Your task to perform on an android device: Show the shopping cart on ebay. Image 0: 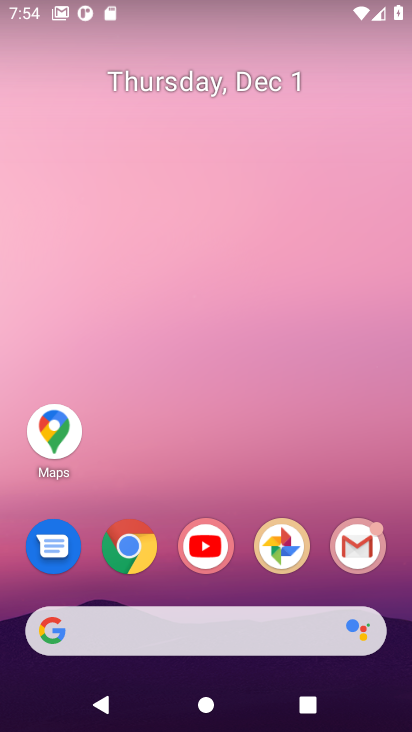
Step 0: click (131, 545)
Your task to perform on an android device: Show the shopping cart on ebay. Image 1: 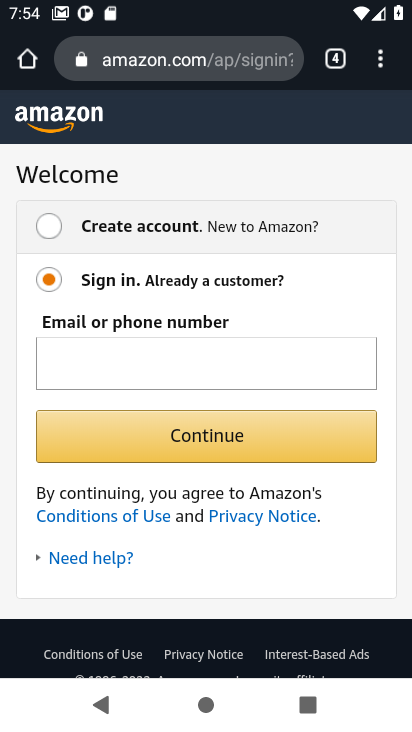
Step 1: click (170, 58)
Your task to perform on an android device: Show the shopping cart on ebay. Image 2: 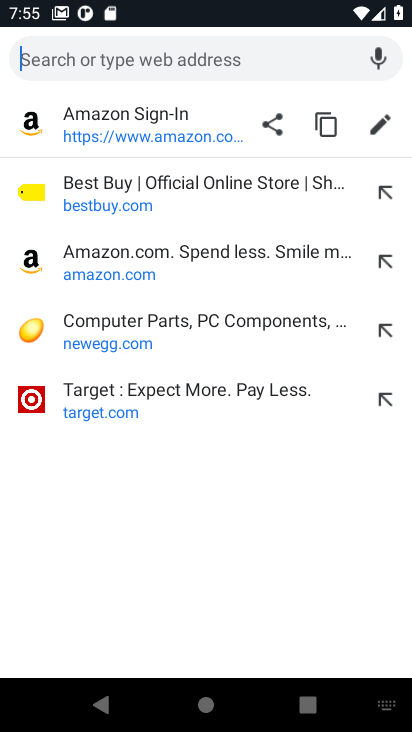
Step 2: type "ebay.com"
Your task to perform on an android device: Show the shopping cart on ebay. Image 3: 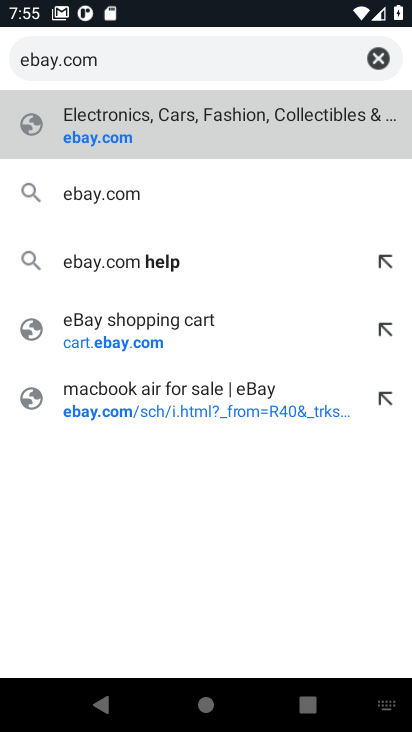
Step 3: click (88, 141)
Your task to perform on an android device: Show the shopping cart on ebay. Image 4: 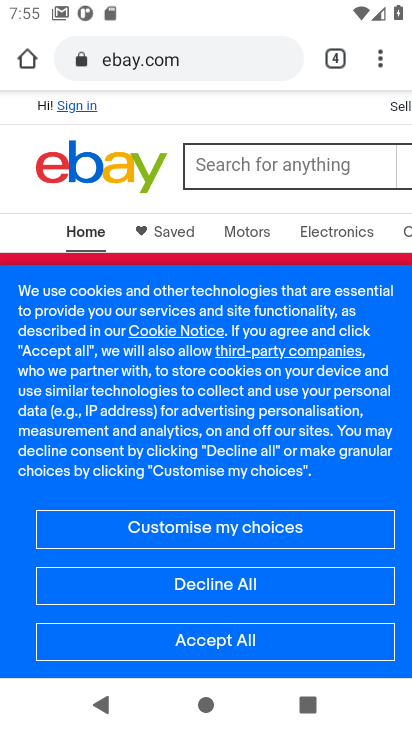
Step 4: drag from (296, 103) to (0, 99)
Your task to perform on an android device: Show the shopping cart on ebay. Image 5: 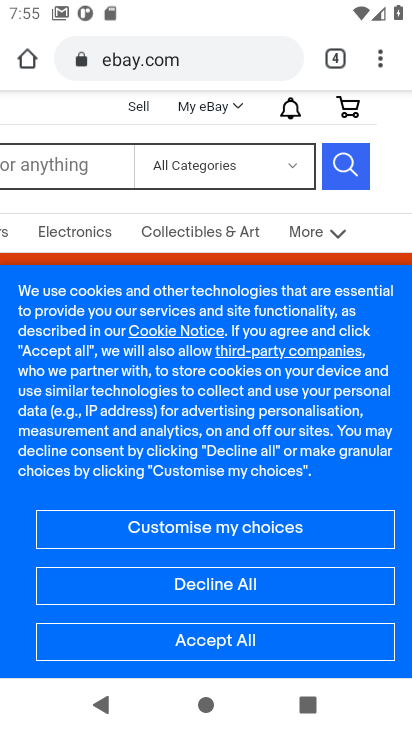
Step 5: click (355, 112)
Your task to perform on an android device: Show the shopping cart on ebay. Image 6: 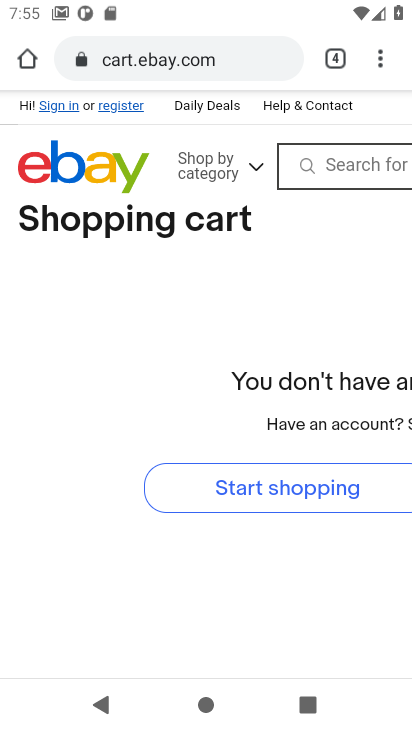
Step 6: task complete